Your task to perform on an android device: Open calendar and show me the second week of next month Image 0: 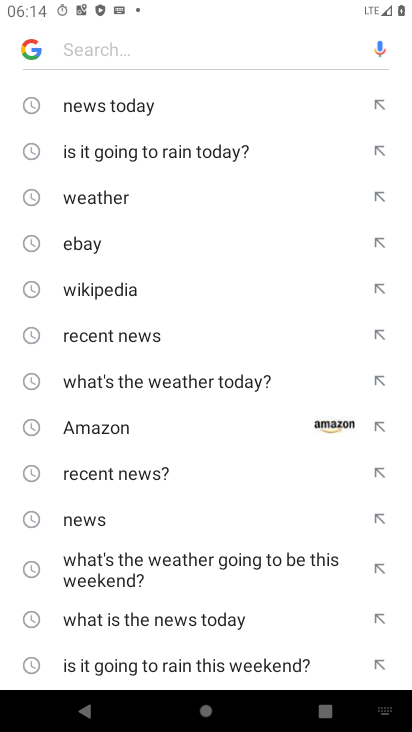
Step 0: press home button
Your task to perform on an android device: Open calendar and show me the second week of next month Image 1: 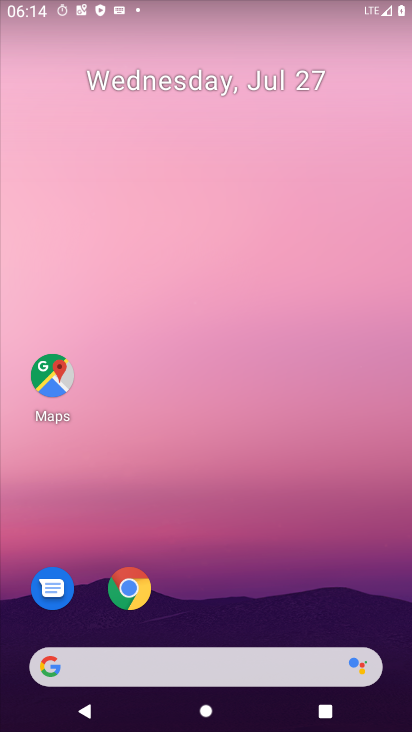
Step 1: drag from (356, 660) to (331, 35)
Your task to perform on an android device: Open calendar and show me the second week of next month Image 2: 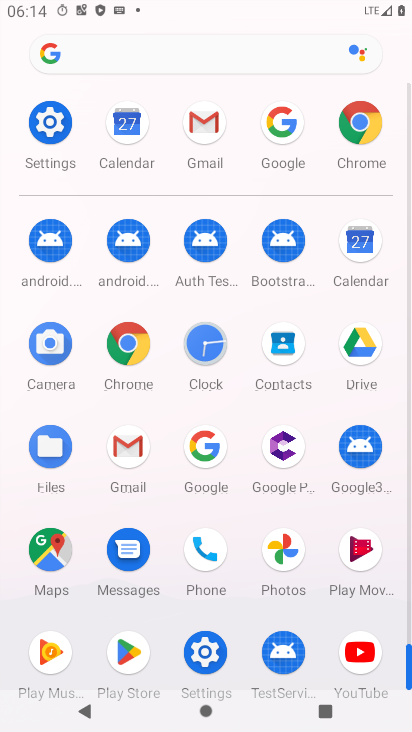
Step 2: click (367, 255)
Your task to perform on an android device: Open calendar and show me the second week of next month Image 3: 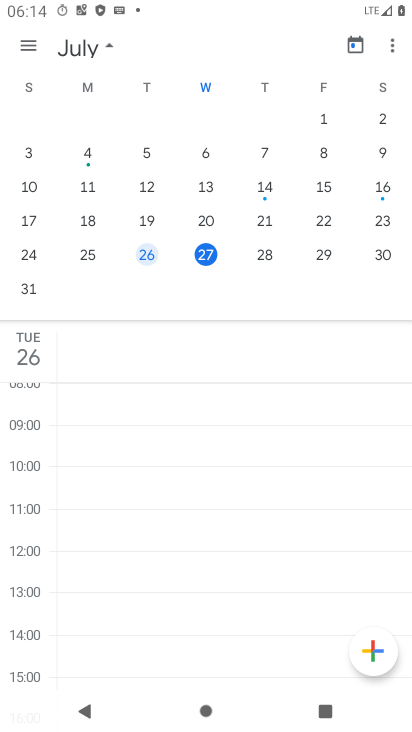
Step 3: drag from (342, 221) to (19, 243)
Your task to perform on an android device: Open calendar and show me the second week of next month Image 4: 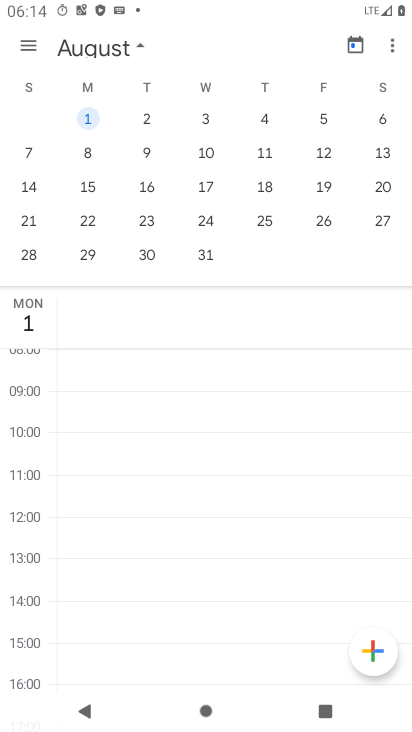
Step 4: click (208, 156)
Your task to perform on an android device: Open calendar and show me the second week of next month Image 5: 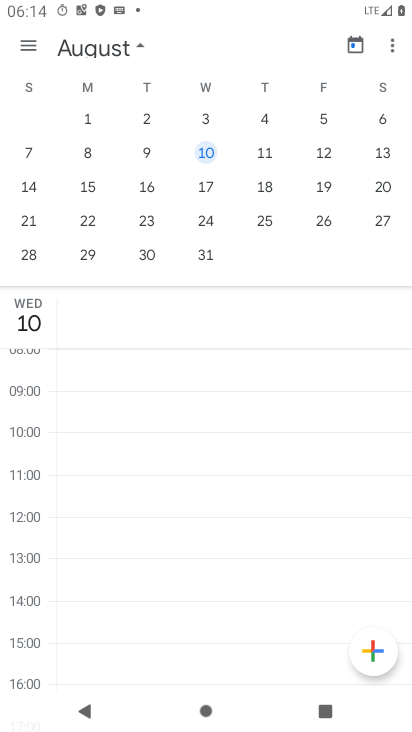
Step 5: task complete